Your task to perform on an android device: turn off location Image 0: 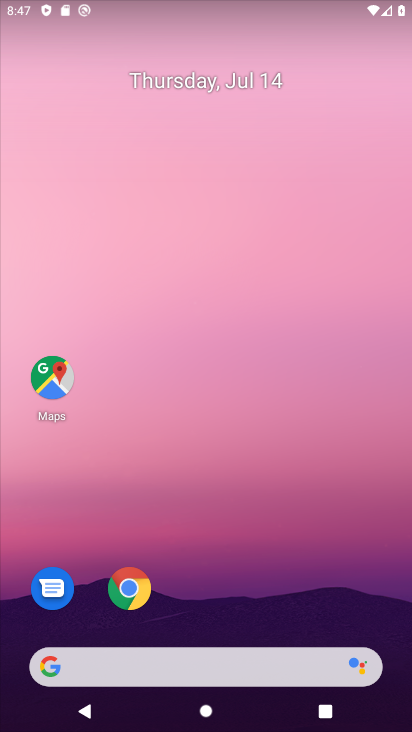
Step 0: drag from (267, 597) to (232, 136)
Your task to perform on an android device: turn off location Image 1: 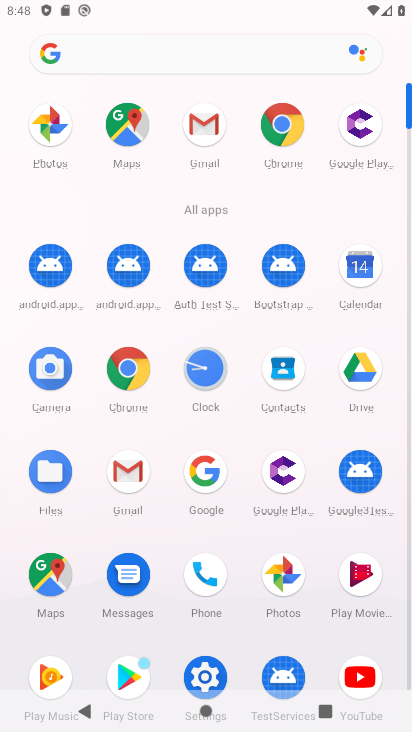
Step 1: click (209, 670)
Your task to perform on an android device: turn off location Image 2: 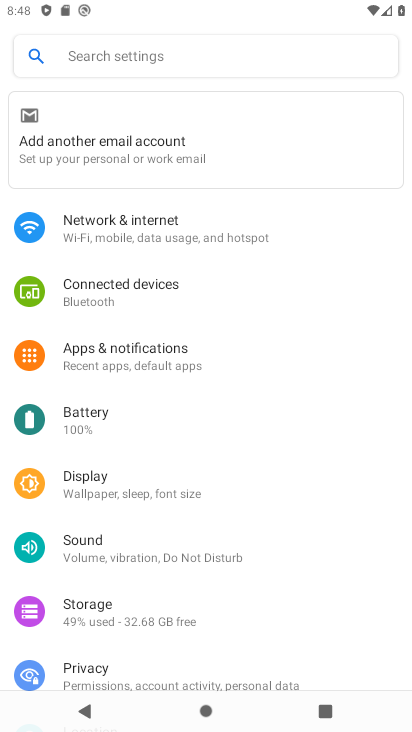
Step 2: drag from (103, 632) to (170, 220)
Your task to perform on an android device: turn off location Image 3: 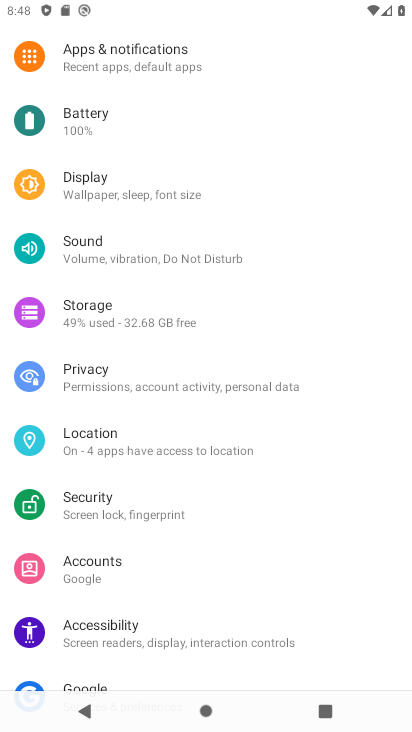
Step 3: click (92, 429)
Your task to perform on an android device: turn off location Image 4: 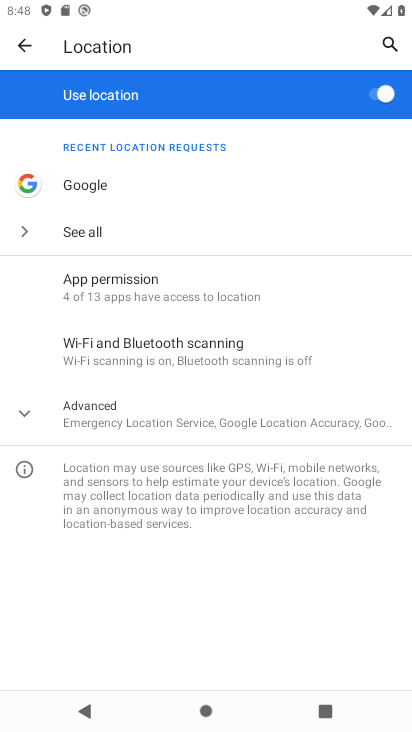
Step 4: click (379, 87)
Your task to perform on an android device: turn off location Image 5: 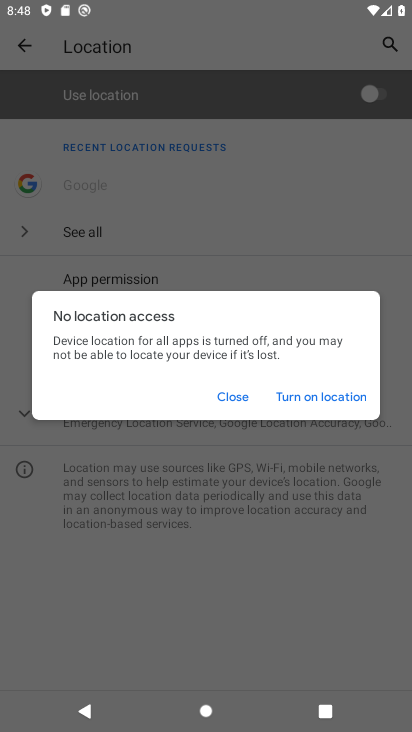
Step 5: task complete